Your task to perform on an android device: toggle sleep mode Image 0: 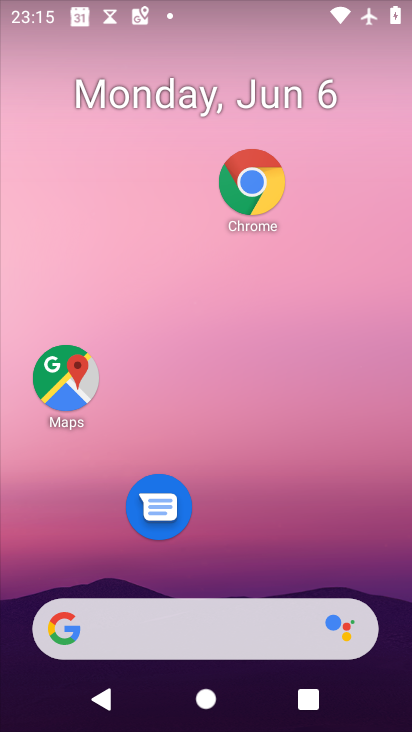
Step 0: drag from (252, 574) to (235, 212)
Your task to perform on an android device: toggle sleep mode Image 1: 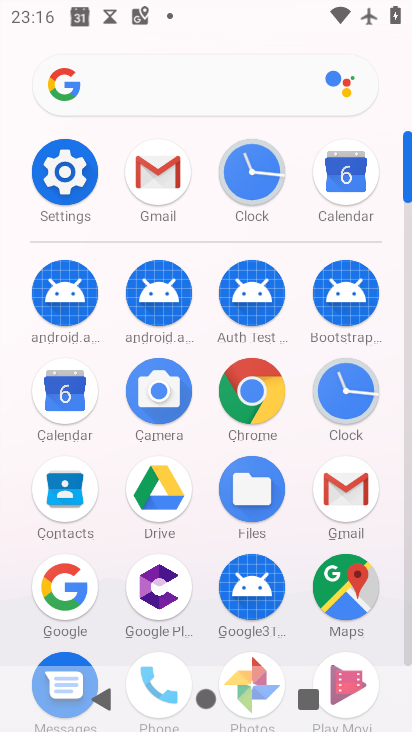
Step 1: click (68, 164)
Your task to perform on an android device: toggle sleep mode Image 2: 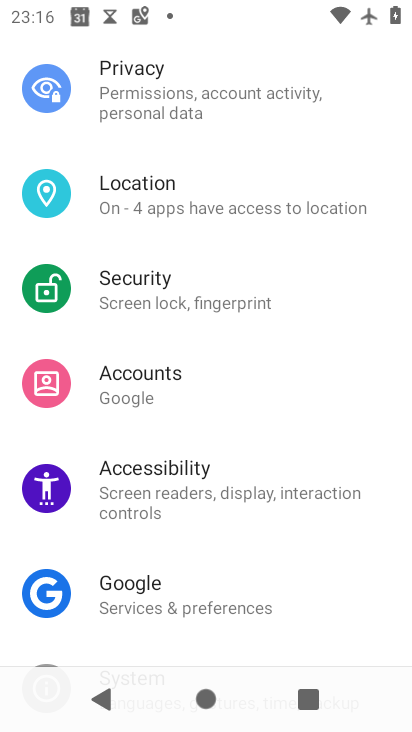
Step 2: task complete